Your task to perform on an android device: delete the emails in spam in the gmail app Image 0: 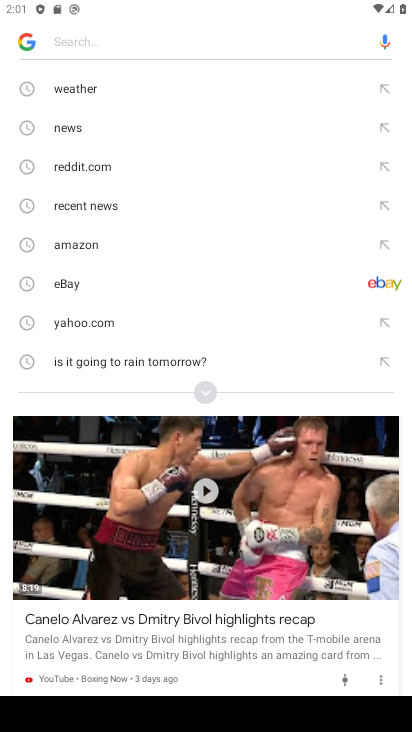
Step 0: press home button
Your task to perform on an android device: delete the emails in spam in the gmail app Image 1: 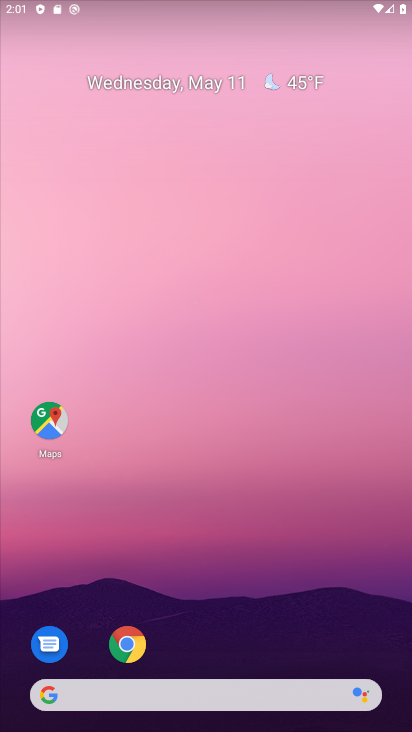
Step 1: drag from (204, 589) to (276, 13)
Your task to perform on an android device: delete the emails in spam in the gmail app Image 2: 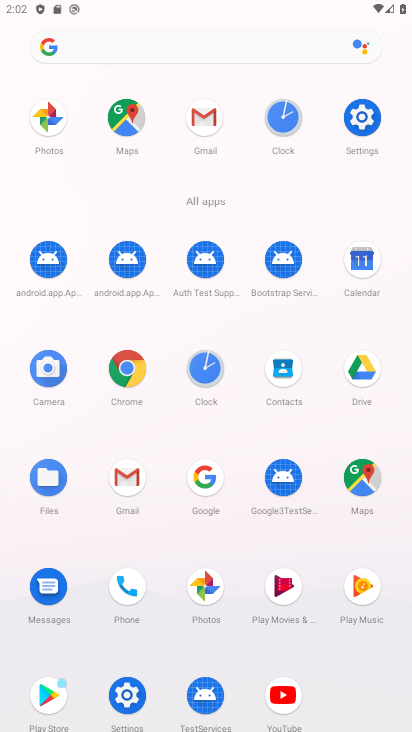
Step 2: click (121, 474)
Your task to perform on an android device: delete the emails in spam in the gmail app Image 3: 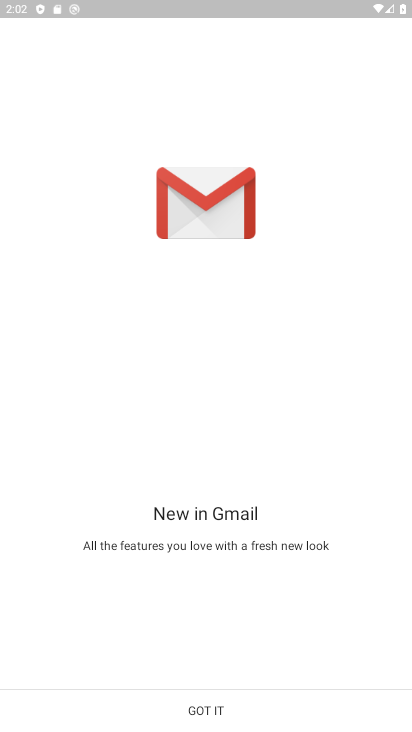
Step 3: click (195, 701)
Your task to perform on an android device: delete the emails in spam in the gmail app Image 4: 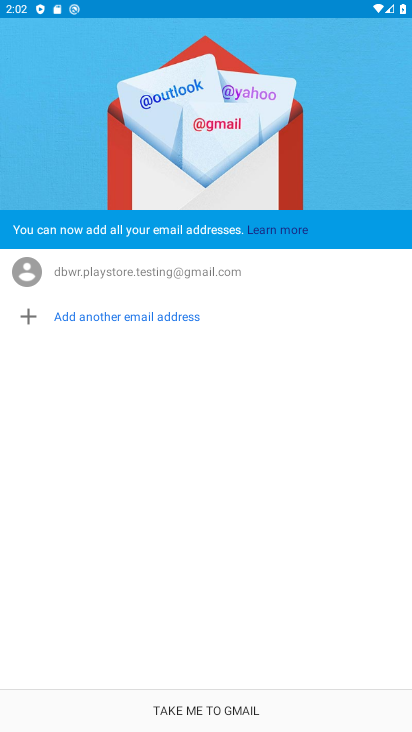
Step 4: click (197, 717)
Your task to perform on an android device: delete the emails in spam in the gmail app Image 5: 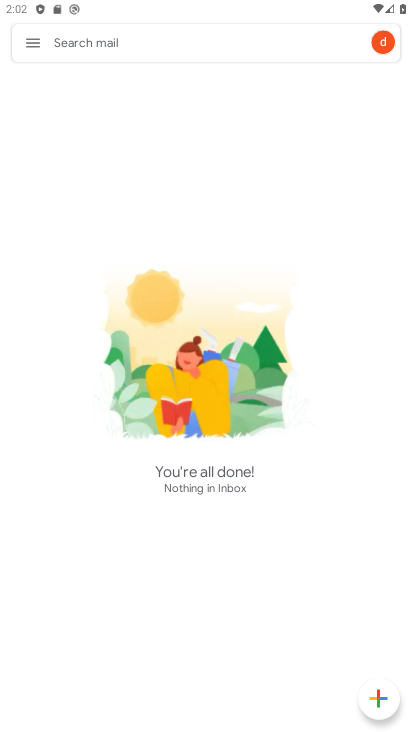
Step 5: click (27, 44)
Your task to perform on an android device: delete the emails in spam in the gmail app Image 6: 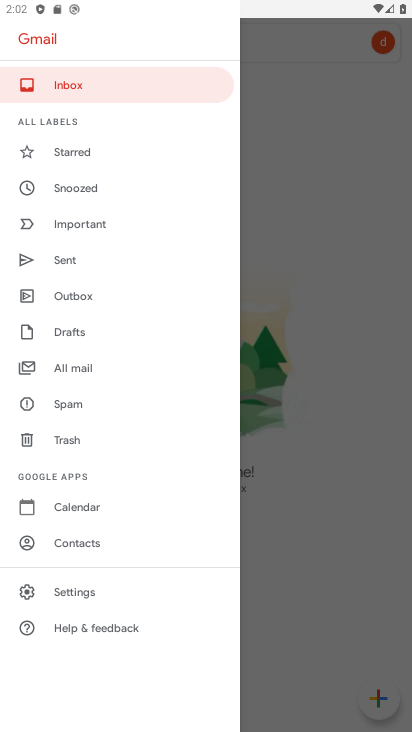
Step 6: click (73, 405)
Your task to perform on an android device: delete the emails in spam in the gmail app Image 7: 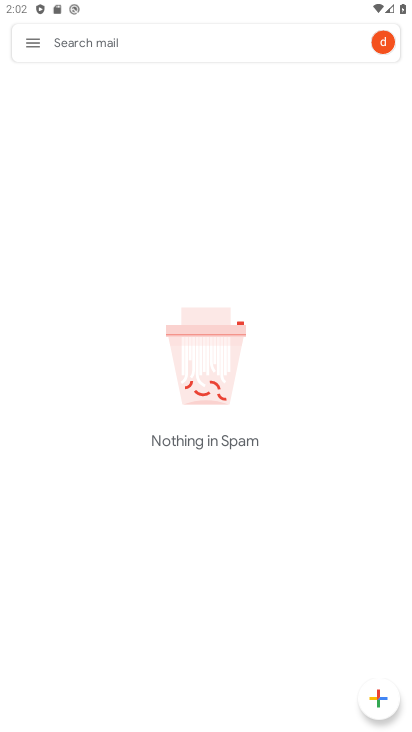
Step 7: task complete